Your task to perform on an android device: Check the weather Image 0: 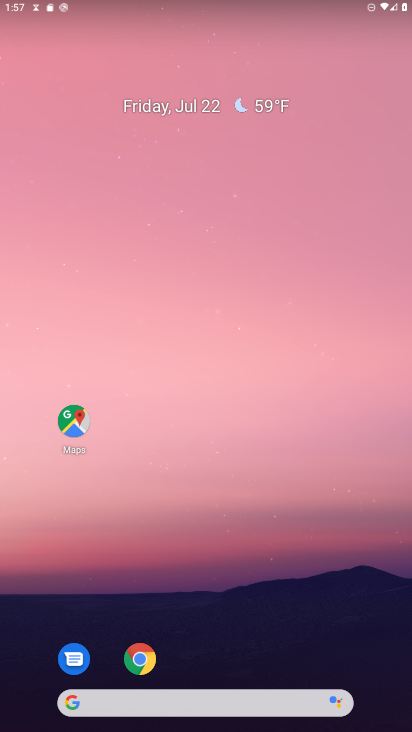
Step 0: drag from (276, 681) to (314, 179)
Your task to perform on an android device: Check the weather Image 1: 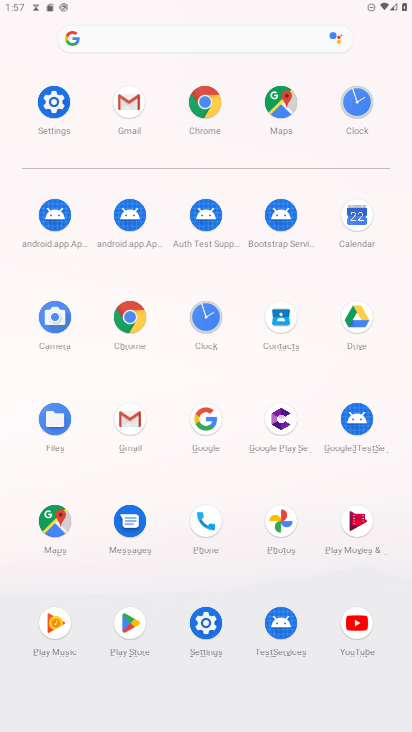
Step 1: click (210, 419)
Your task to perform on an android device: Check the weather Image 2: 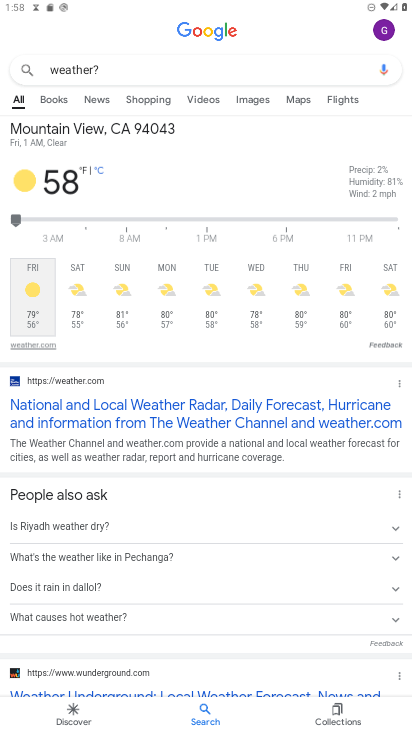
Step 2: task complete